Your task to perform on an android device: Open Wikipedia Image 0: 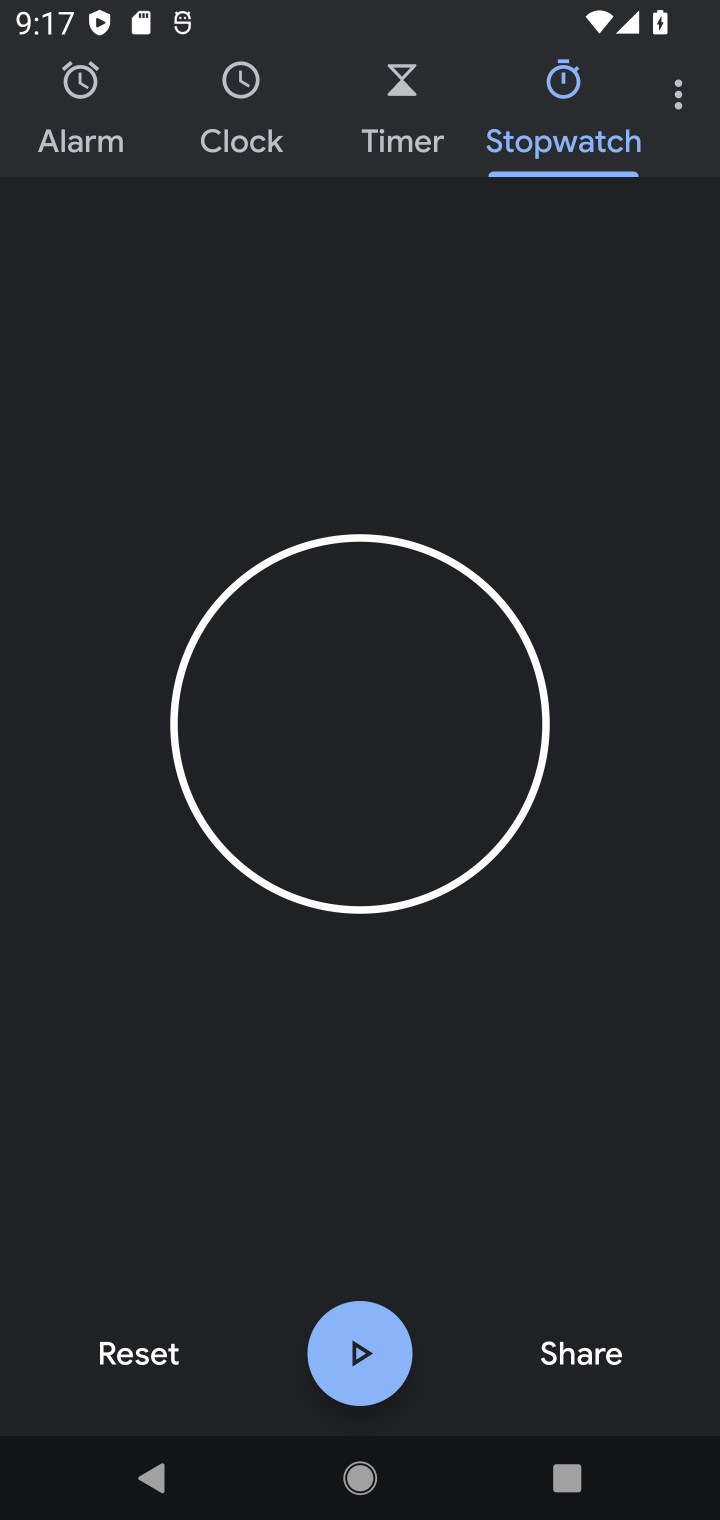
Step 0: press home button
Your task to perform on an android device: Open Wikipedia Image 1: 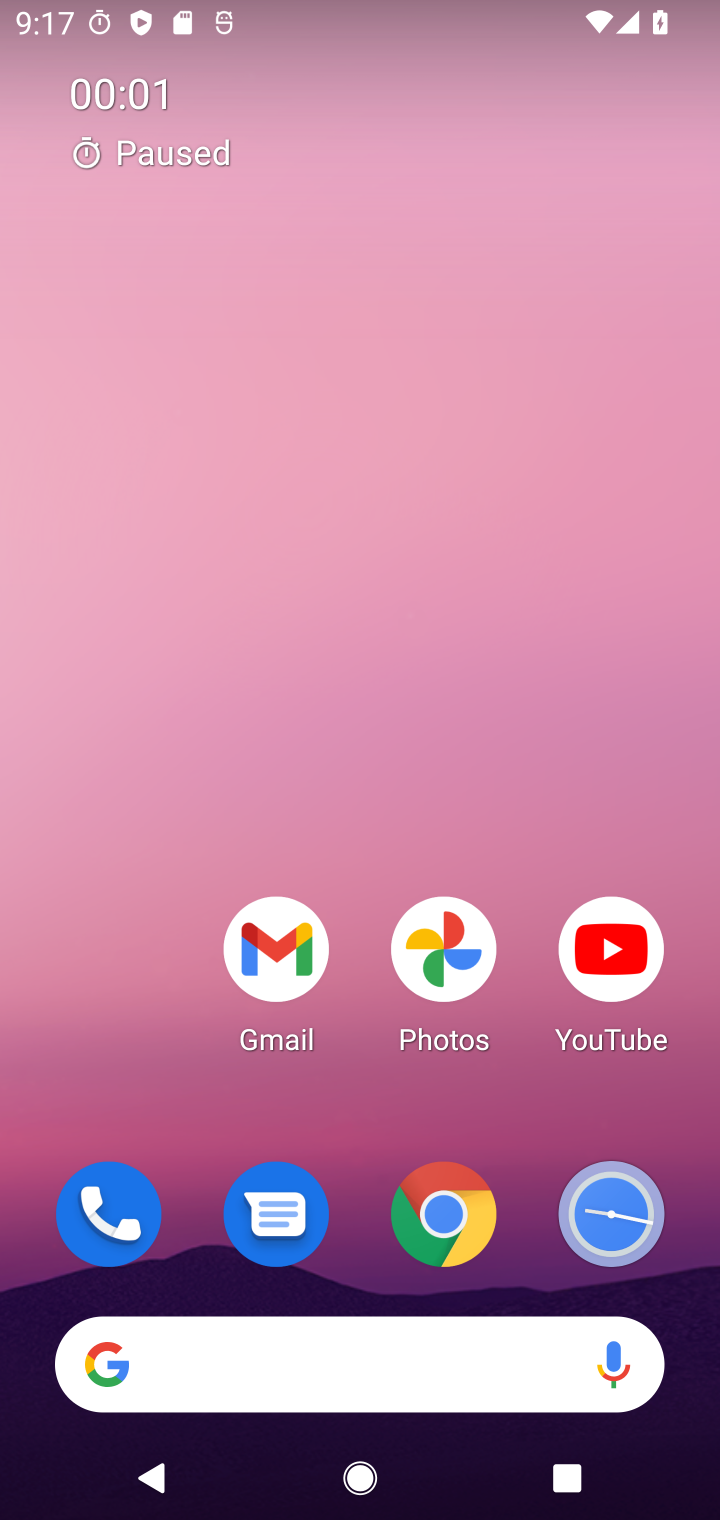
Step 1: drag from (46, 1433) to (196, 448)
Your task to perform on an android device: Open Wikipedia Image 2: 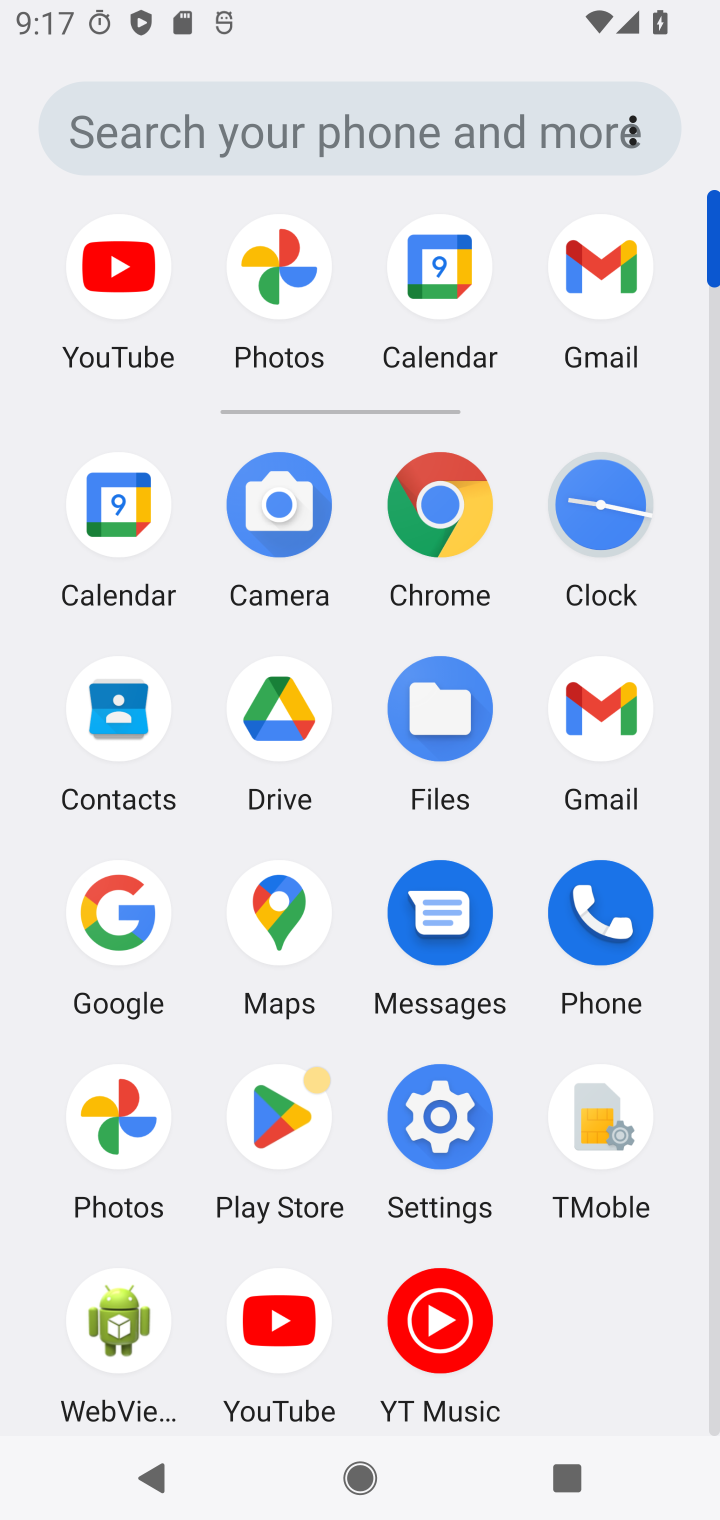
Step 2: click (124, 126)
Your task to perform on an android device: Open Wikipedia Image 3: 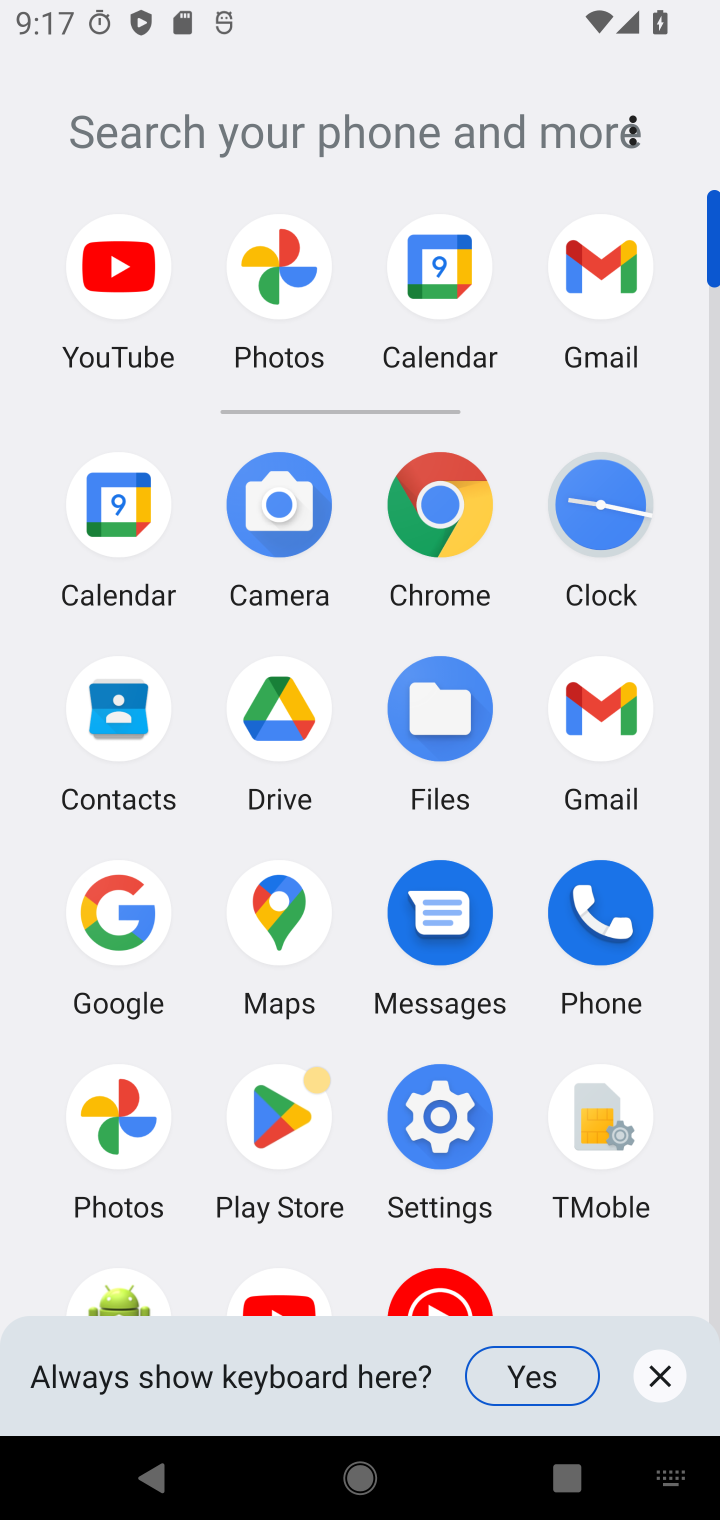
Step 3: type "Wikipedia"
Your task to perform on an android device: Open Wikipedia Image 4: 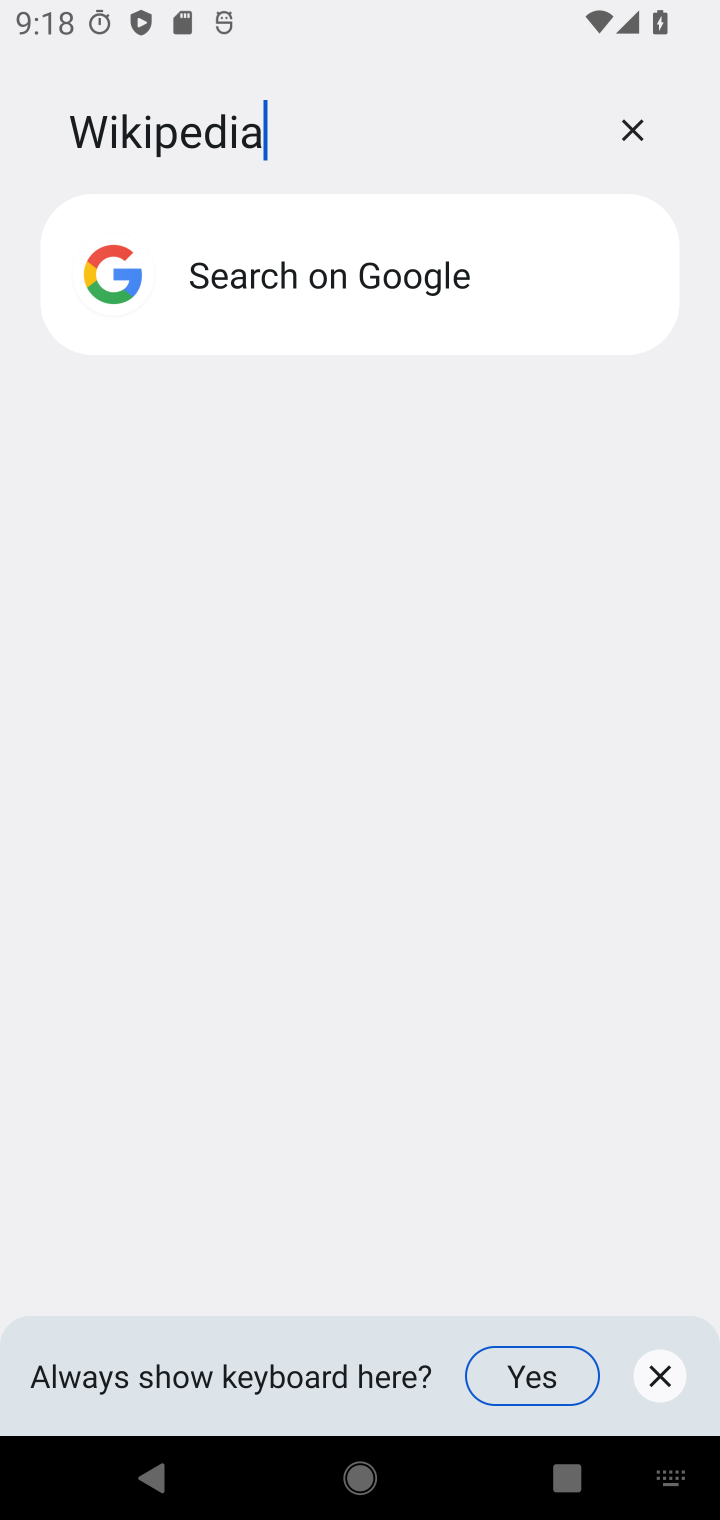
Step 4: type ""
Your task to perform on an android device: Open Wikipedia Image 5: 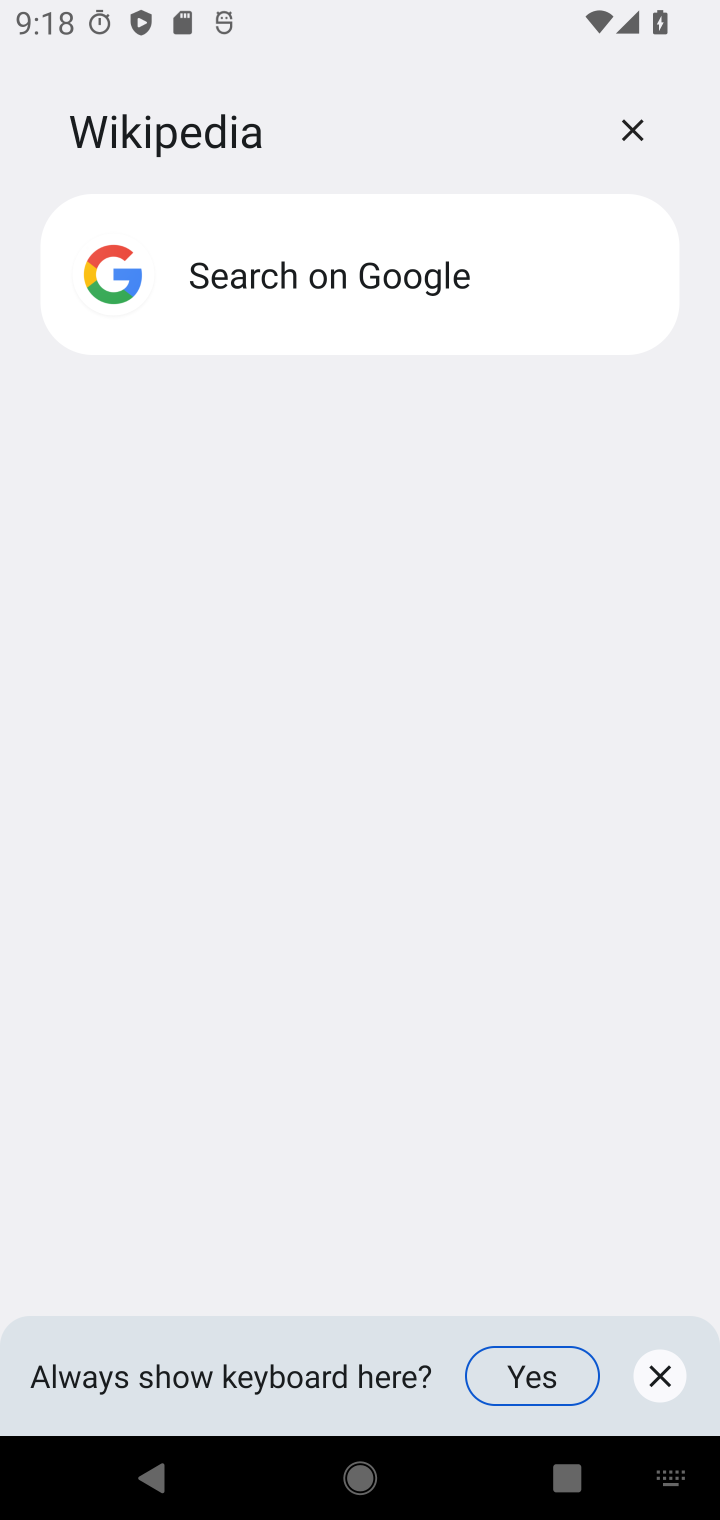
Step 5: type ""
Your task to perform on an android device: Open Wikipedia Image 6: 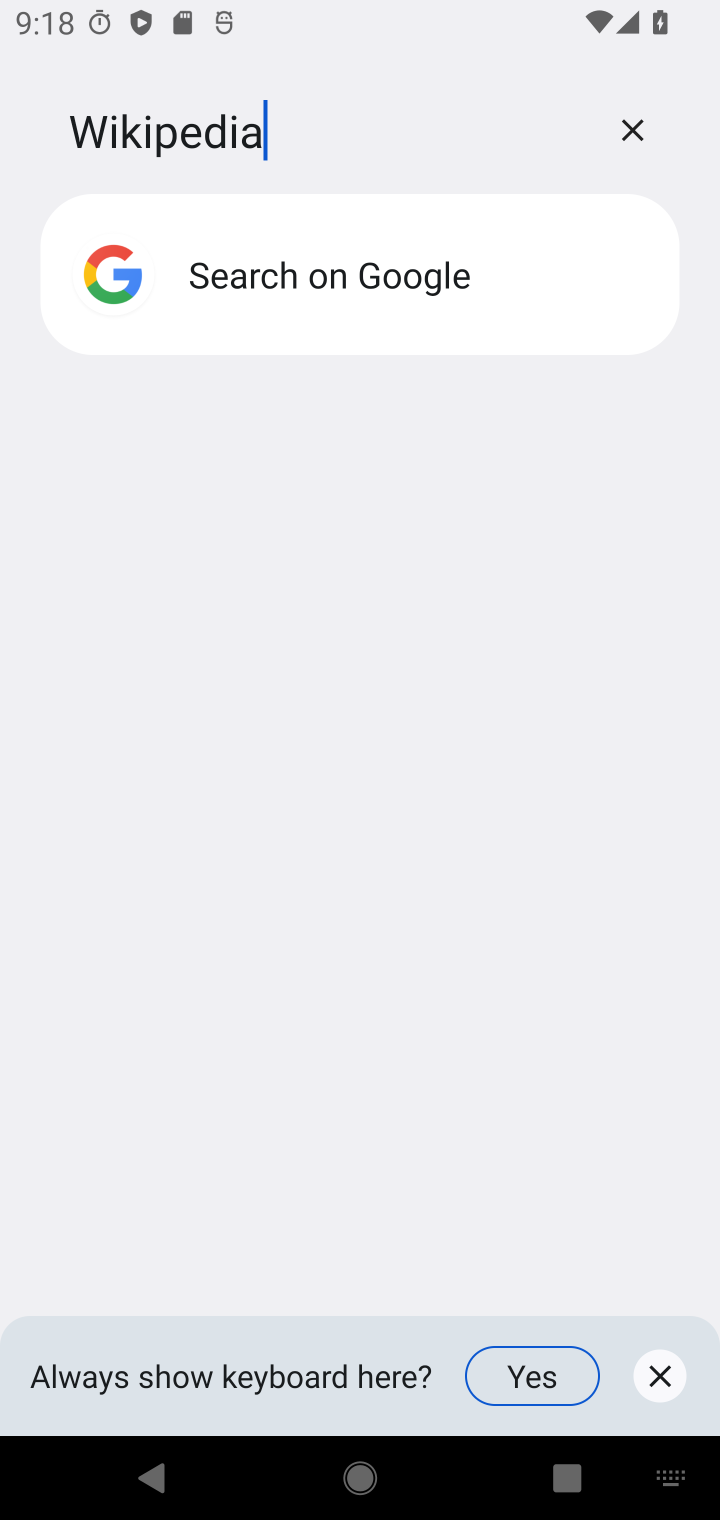
Step 6: task complete